Your task to perform on an android device: Open settings Image 0: 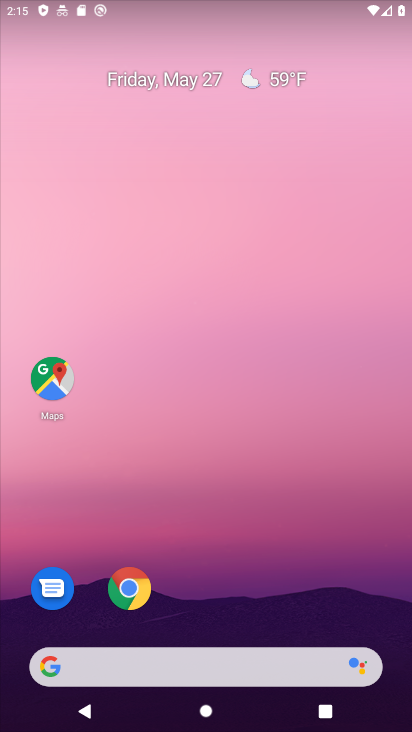
Step 0: click (225, 22)
Your task to perform on an android device: Open settings Image 1: 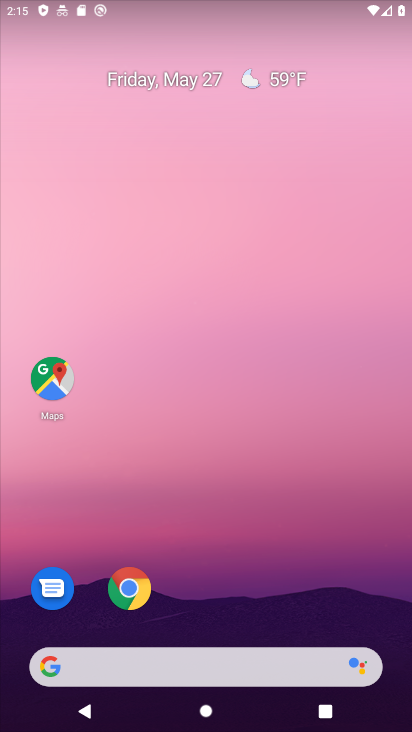
Step 1: drag from (184, 241) to (141, 88)
Your task to perform on an android device: Open settings Image 2: 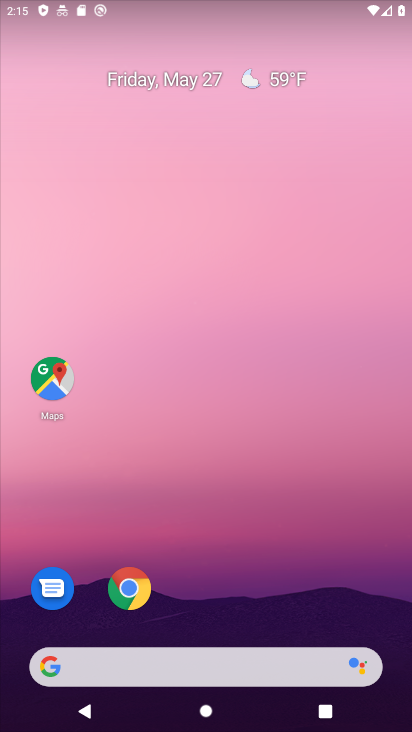
Step 2: drag from (272, 270) to (246, 94)
Your task to perform on an android device: Open settings Image 3: 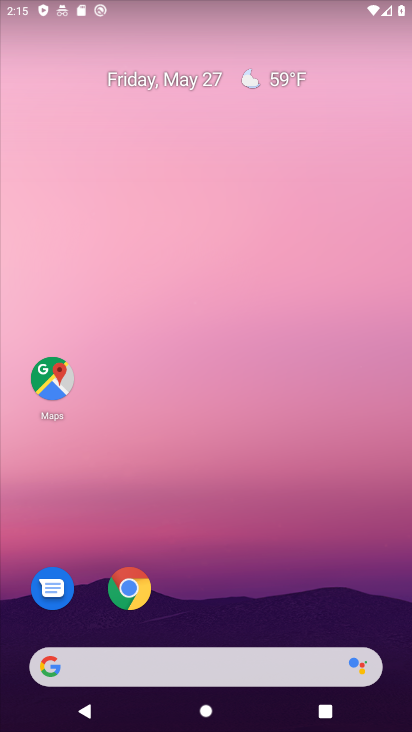
Step 3: drag from (266, 620) to (114, 34)
Your task to perform on an android device: Open settings Image 4: 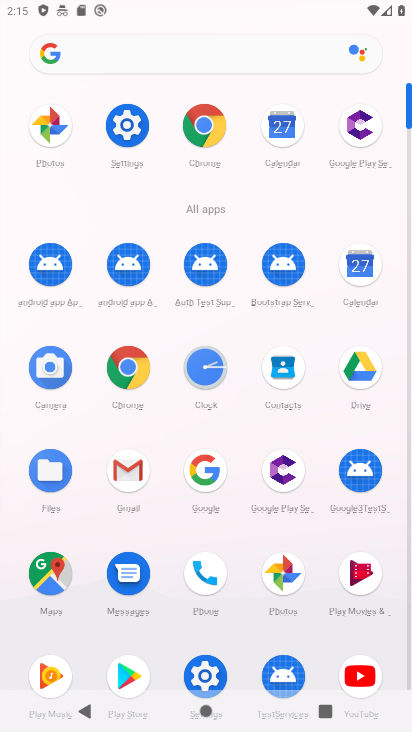
Step 4: click (124, 133)
Your task to perform on an android device: Open settings Image 5: 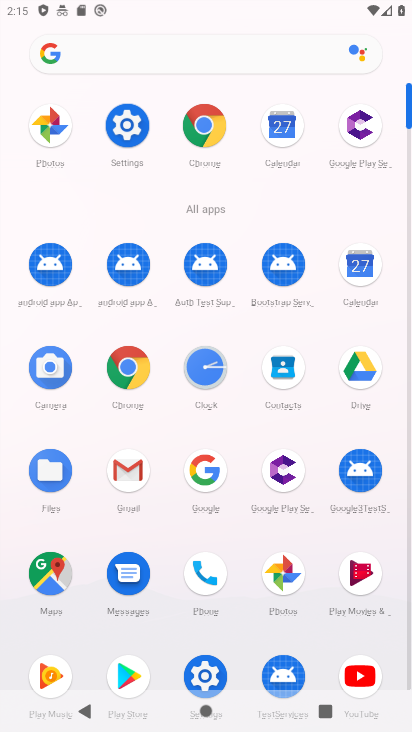
Step 5: click (124, 133)
Your task to perform on an android device: Open settings Image 6: 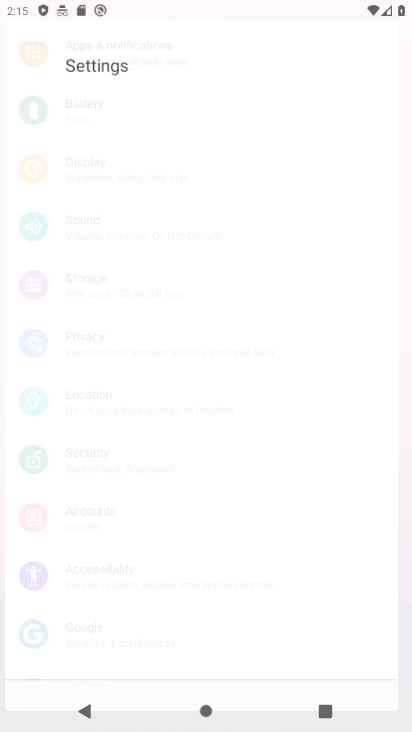
Step 6: click (124, 133)
Your task to perform on an android device: Open settings Image 7: 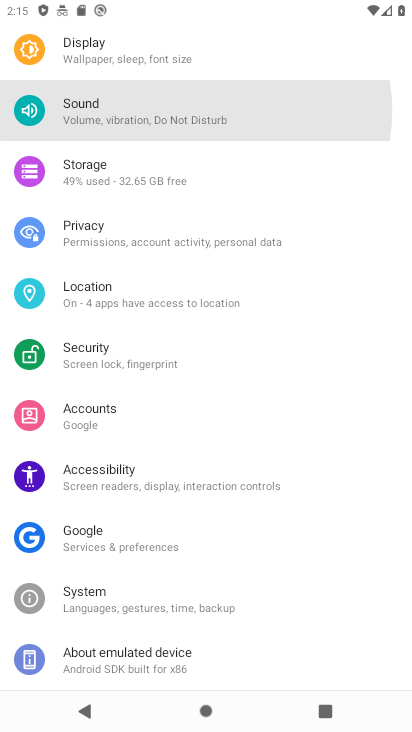
Step 7: click (124, 133)
Your task to perform on an android device: Open settings Image 8: 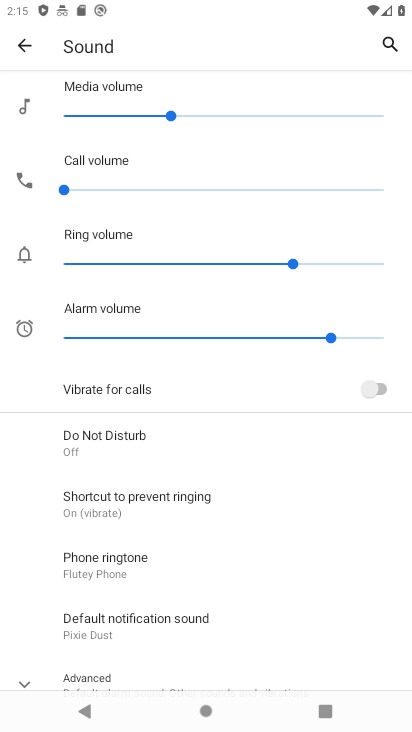
Step 8: task complete